Your task to perform on an android device: clear history in the chrome app Image 0: 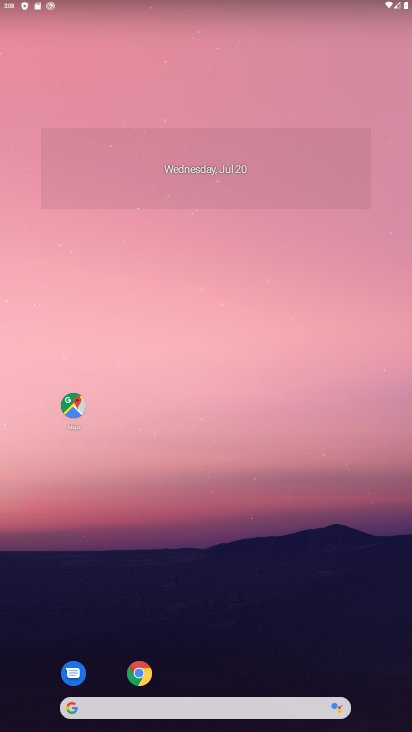
Step 0: click (135, 679)
Your task to perform on an android device: clear history in the chrome app Image 1: 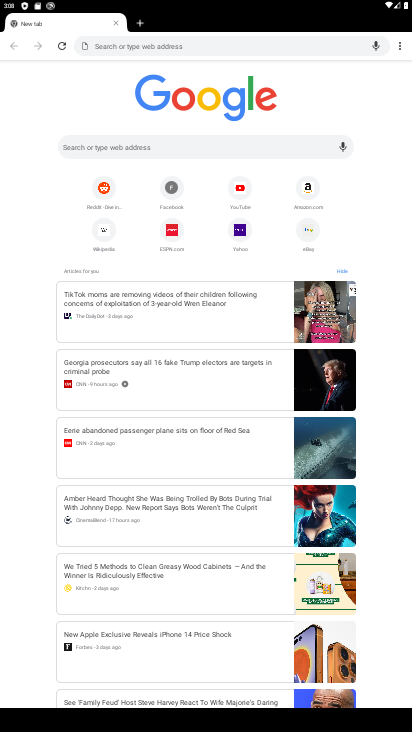
Step 1: click (400, 45)
Your task to perform on an android device: clear history in the chrome app Image 2: 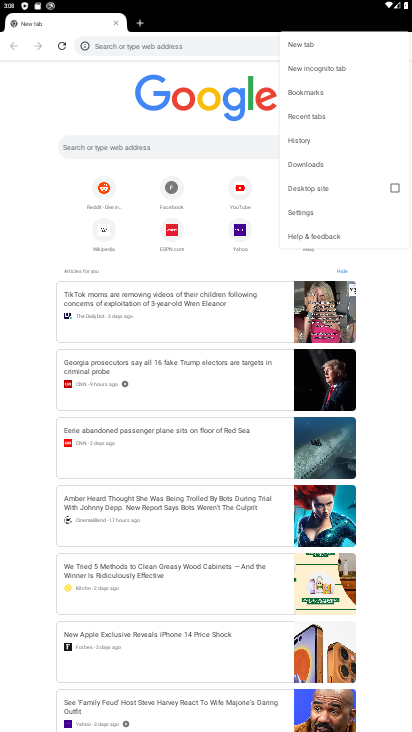
Step 2: click (318, 144)
Your task to perform on an android device: clear history in the chrome app Image 3: 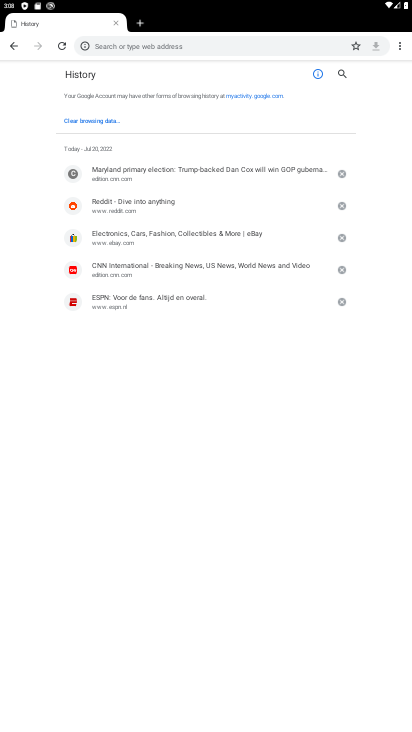
Step 3: click (90, 120)
Your task to perform on an android device: clear history in the chrome app Image 4: 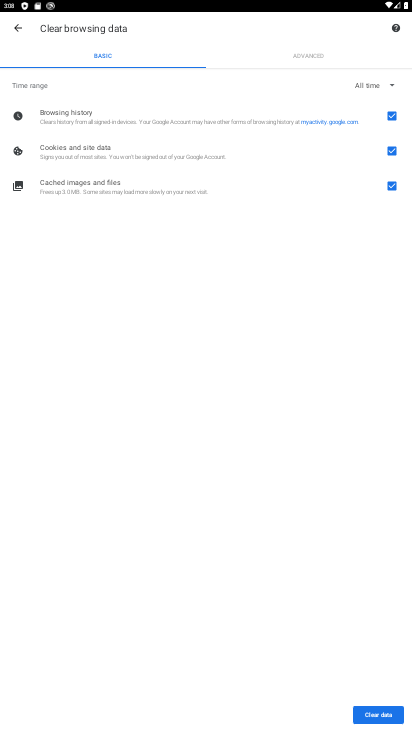
Step 4: click (375, 715)
Your task to perform on an android device: clear history in the chrome app Image 5: 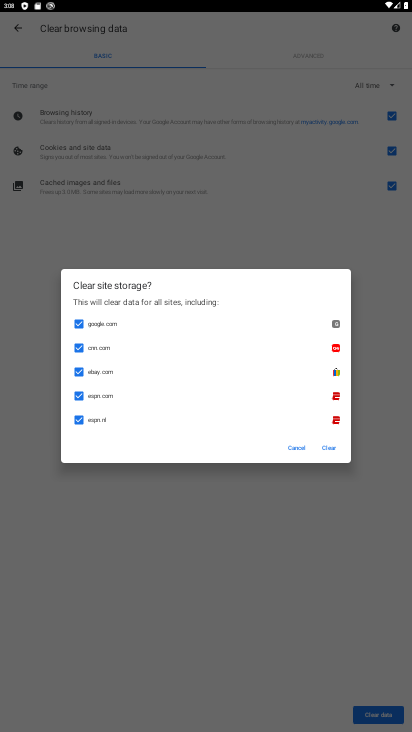
Step 5: click (323, 443)
Your task to perform on an android device: clear history in the chrome app Image 6: 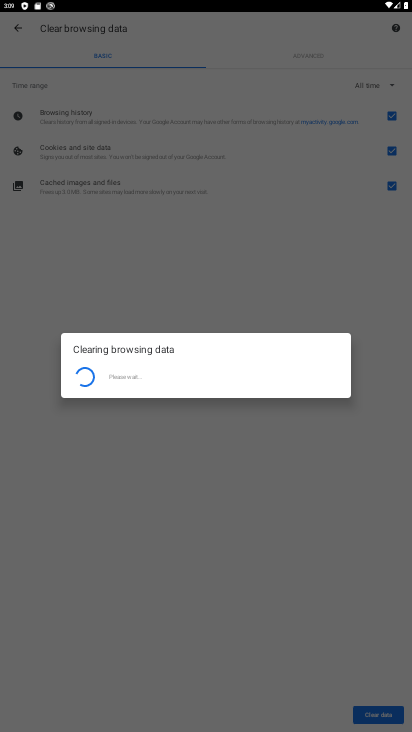
Step 6: task complete